Your task to perform on an android device: Search for the new Nike Air Max 270 on Nike.com Image 0: 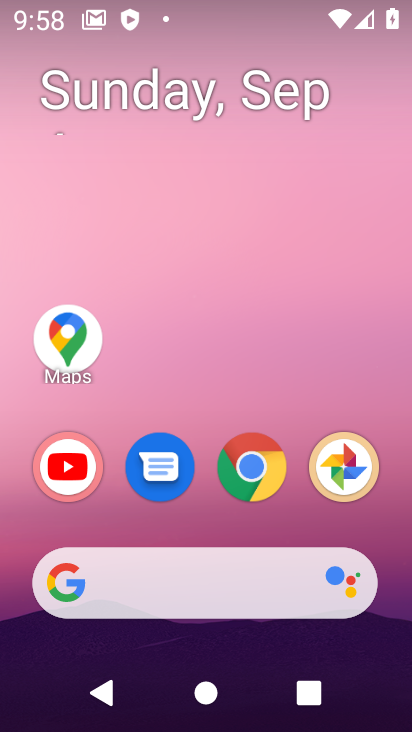
Step 0: click (268, 479)
Your task to perform on an android device: Search for the new Nike Air Max 270 on Nike.com Image 1: 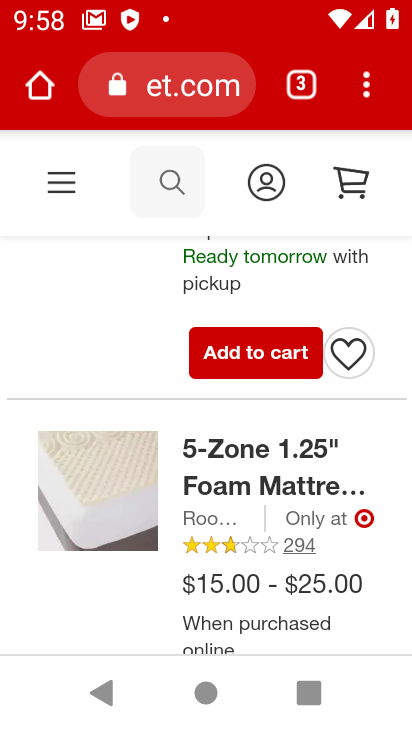
Step 1: click (202, 75)
Your task to perform on an android device: Search for the new Nike Air Max 270 on Nike.com Image 2: 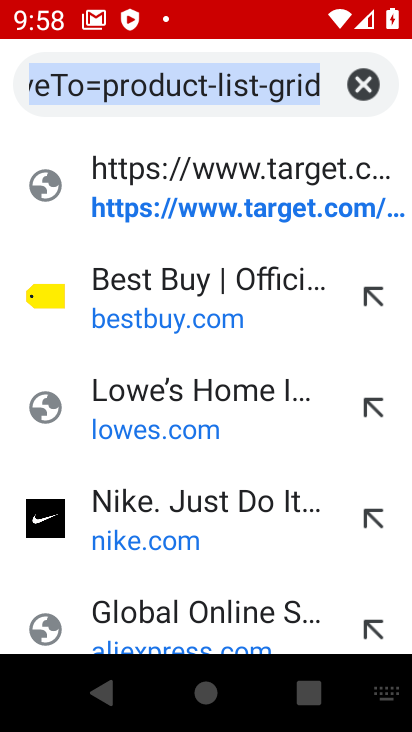
Step 2: click (123, 522)
Your task to perform on an android device: Search for the new Nike Air Max 270 on Nike.com Image 3: 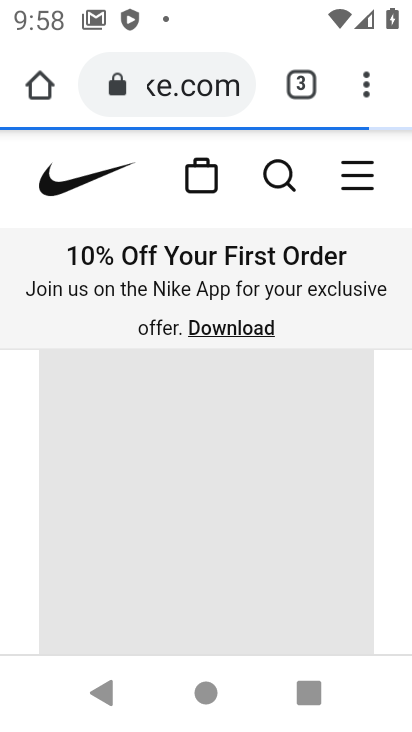
Step 3: click (273, 173)
Your task to perform on an android device: Search for the new Nike Air Max 270 on Nike.com Image 4: 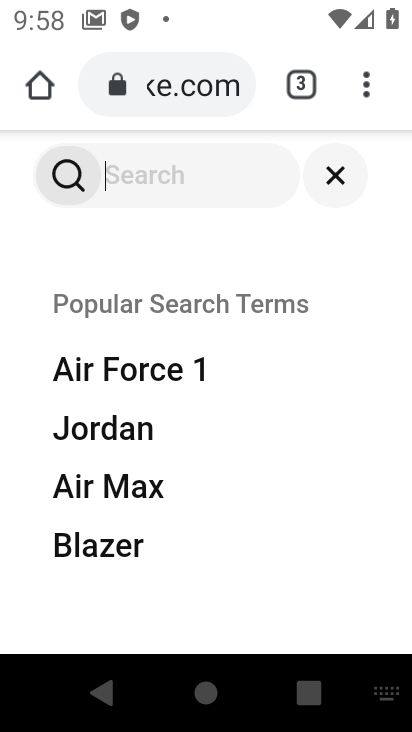
Step 4: type "nike air max 270"
Your task to perform on an android device: Search for the new Nike Air Max 270 on Nike.com Image 5: 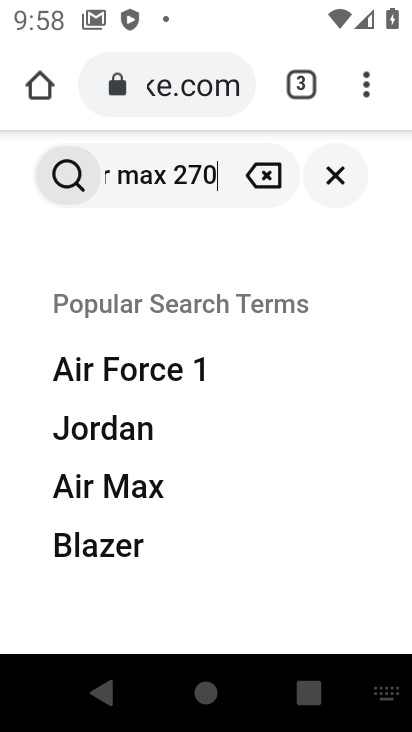
Step 5: type ""
Your task to perform on an android device: Search for the new Nike Air Max 270 on Nike.com Image 6: 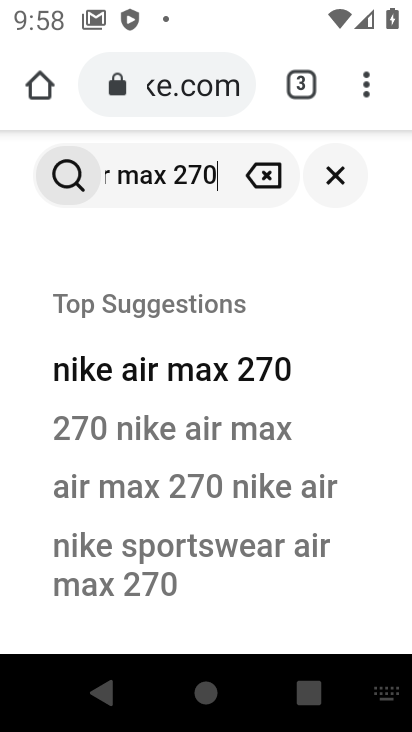
Step 6: click (112, 495)
Your task to perform on an android device: Search for the new Nike Air Max 270 on Nike.com Image 7: 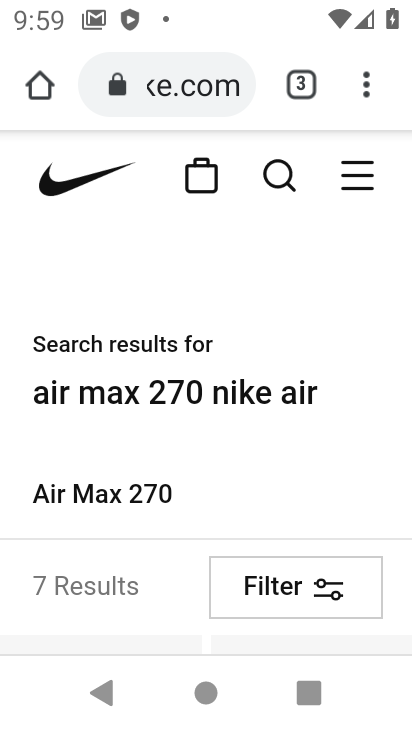
Step 7: click (83, 493)
Your task to perform on an android device: Search for the new Nike Air Max 270 on Nike.com Image 8: 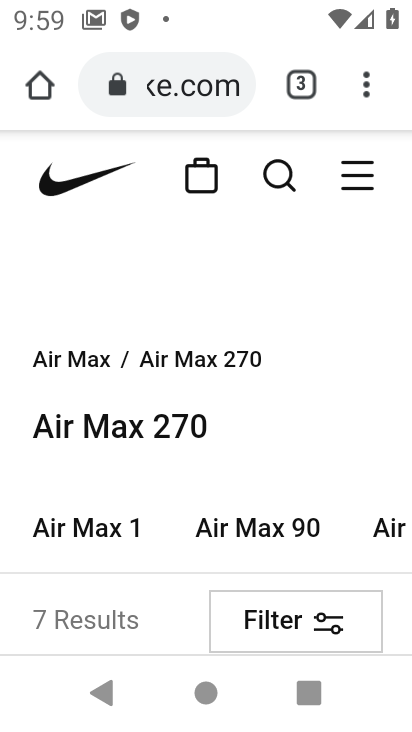
Step 8: drag from (248, 436) to (208, 244)
Your task to perform on an android device: Search for the new Nike Air Max 270 on Nike.com Image 9: 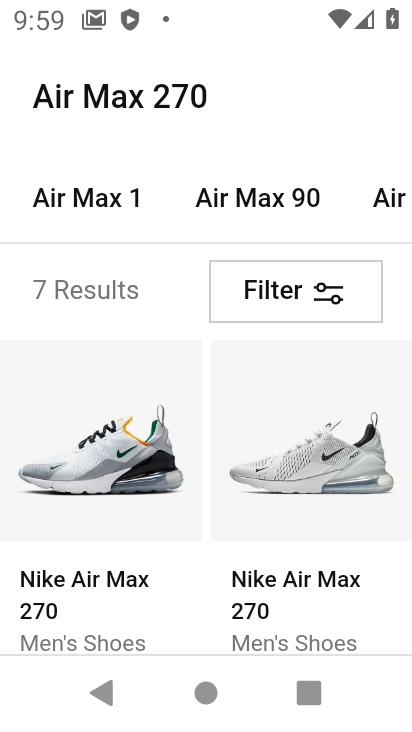
Step 9: drag from (210, 500) to (295, 55)
Your task to perform on an android device: Search for the new Nike Air Max 270 on Nike.com Image 10: 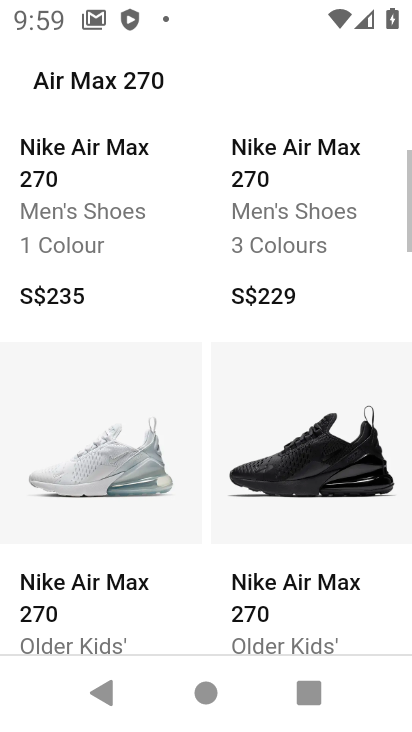
Step 10: drag from (258, 477) to (262, 179)
Your task to perform on an android device: Search for the new Nike Air Max 270 on Nike.com Image 11: 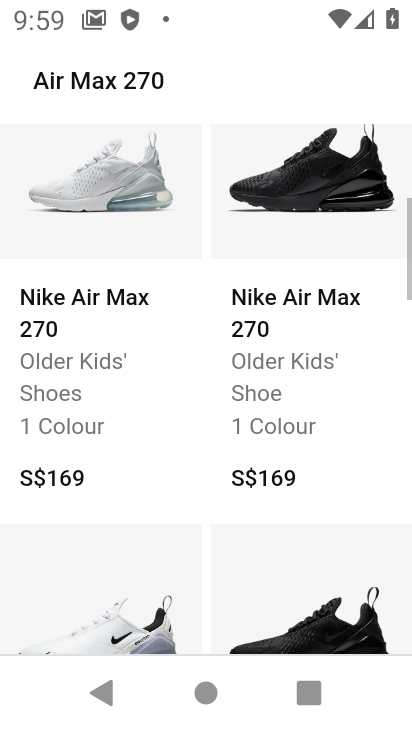
Step 11: drag from (148, 512) to (133, 141)
Your task to perform on an android device: Search for the new Nike Air Max 270 on Nike.com Image 12: 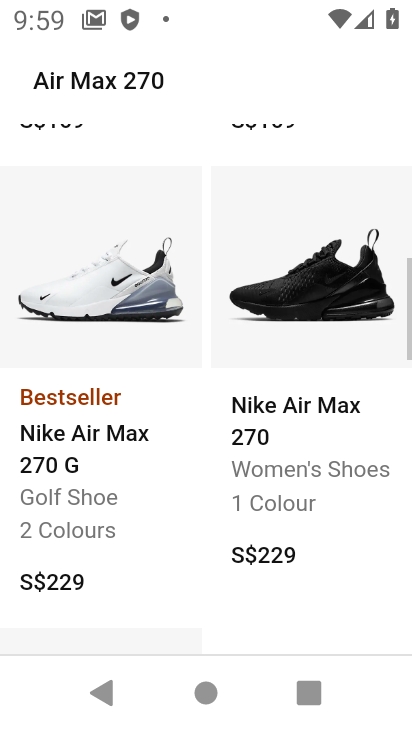
Step 12: drag from (168, 479) to (161, 123)
Your task to perform on an android device: Search for the new Nike Air Max 270 on Nike.com Image 13: 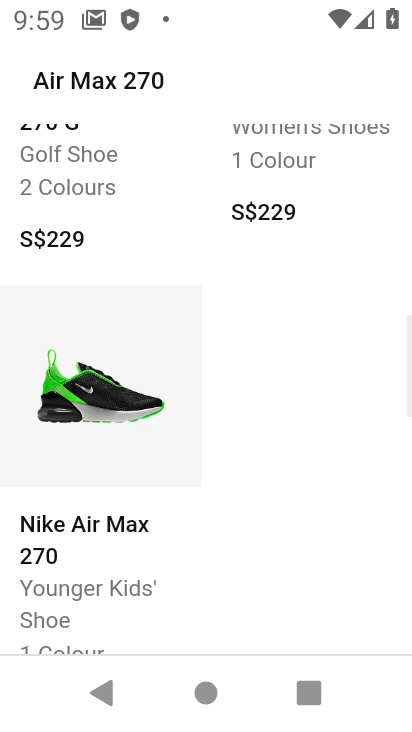
Step 13: drag from (134, 480) to (133, 229)
Your task to perform on an android device: Search for the new Nike Air Max 270 on Nike.com Image 14: 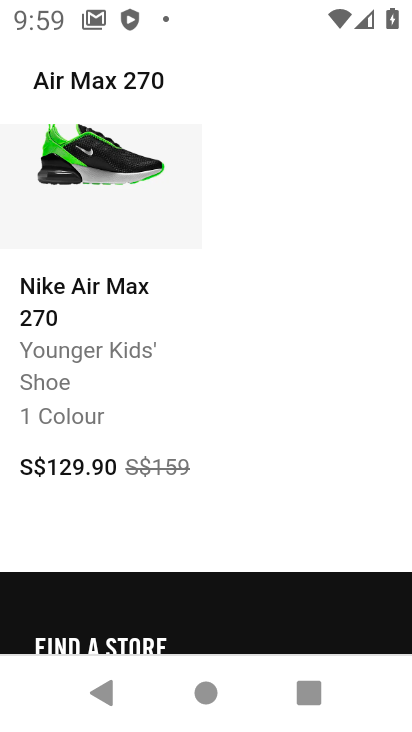
Step 14: drag from (293, 343) to (298, 681)
Your task to perform on an android device: Search for the new Nike Air Max 270 on Nike.com Image 15: 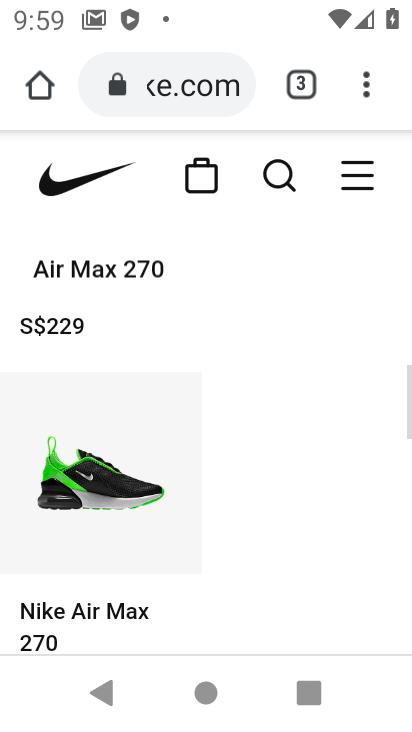
Step 15: drag from (179, 296) to (195, 698)
Your task to perform on an android device: Search for the new Nike Air Max 270 on Nike.com Image 16: 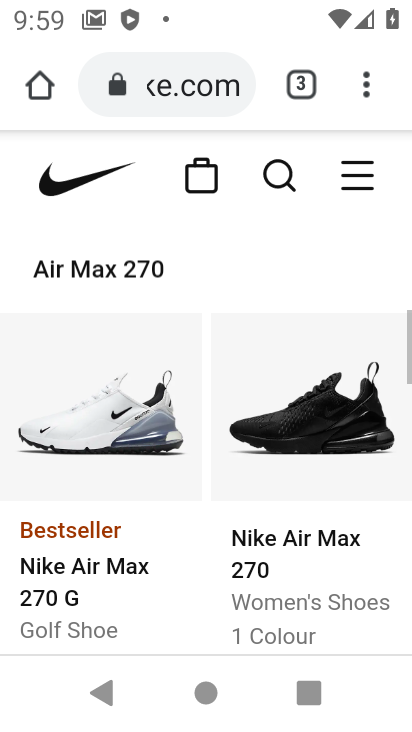
Step 16: drag from (142, 569) to (157, 721)
Your task to perform on an android device: Search for the new Nike Air Max 270 on Nike.com Image 17: 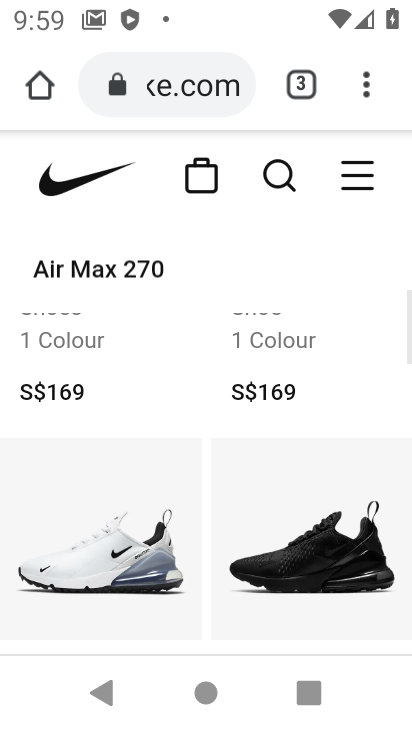
Step 17: drag from (168, 519) to (175, 698)
Your task to perform on an android device: Search for the new Nike Air Max 270 on Nike.com Image 18: 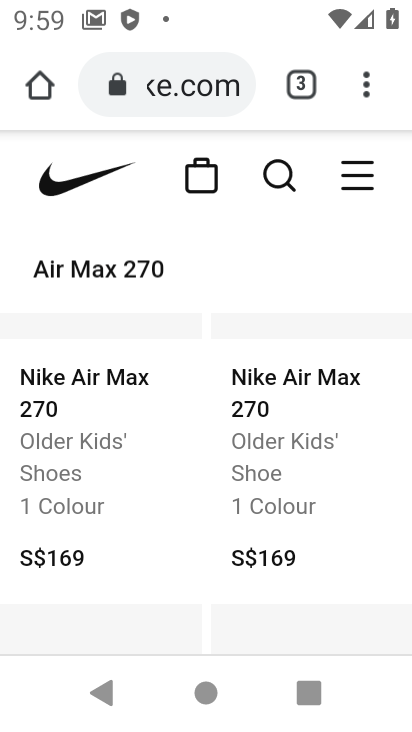
Step 18: drag from (166, 424) to (189, 653)
Your task to perform on an android device: Search for the new Nike Air Max 270 on Nike.com Image 19: 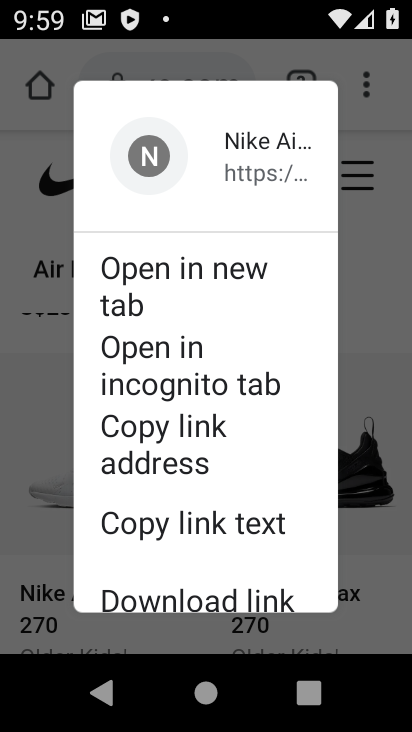
Step 19: drag from (369, 246) to (404, 604)
Your task to perform on an android device: Search for the new Nike Air Max 270 on Nike.com Image 20: 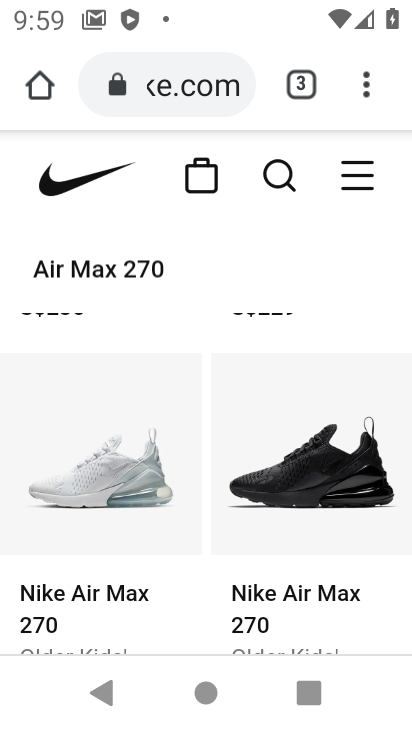
Step 20: drag from (260, 314) to (291, 618)
Your task to perform on an android device: Search for the new Nike Air Max 270 on Nike.com Image 21: 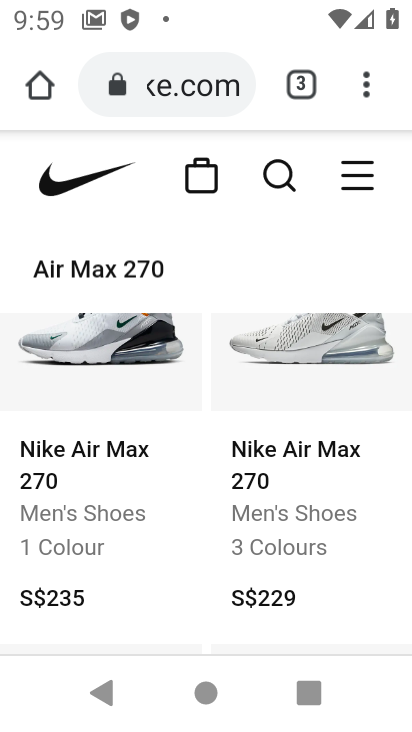
Step 21: drag from (297, 360) to (329, 630)
Your task to perform on an android device: Search for the new Nike Air Max 270 on Nike.com Image 22: 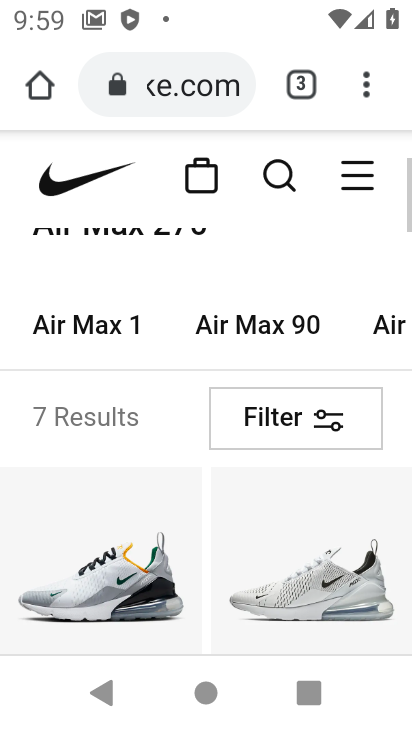
Step 22: click (299, 715)
Your task to perform on an android device: Search for the new Nike Air Max 270 on Nike.com Image 23: 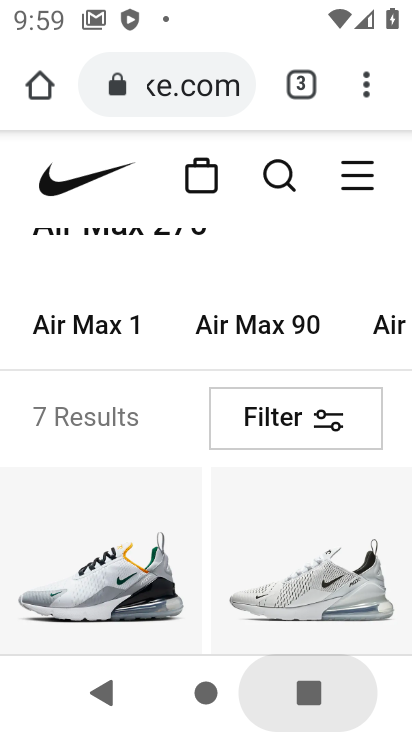
Step 23: drag from (243, 374) to (263, 688)
Your task to perform on an android device: Search for the new Nike Air Max 270 on Nike.com Image 24: 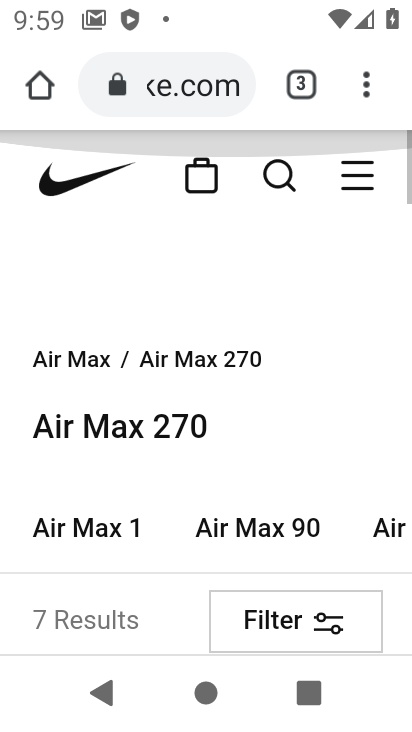
Step 24: drag from (229, 536) to (235, 709)
Your task to perform on an android device: Search for the new Nike Air Max 270 on Nike.com Image 25: 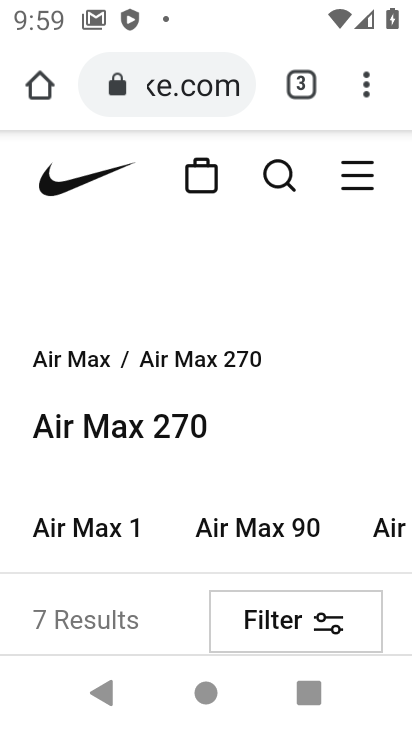
Step 25: drag from (264, 317) to (285, 685)
Your task to perform on an android device: Search for the new Nike Air Max 270 on Nike.com Image 26: 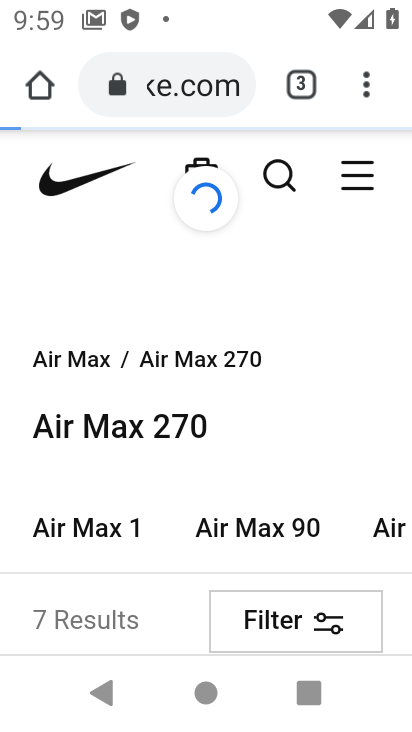
Step 26: drag from (271, 246) to (300, 657)
Your task to perform on an android device: Search for the new Nike Air Max 270 on Nike.com Image 27: 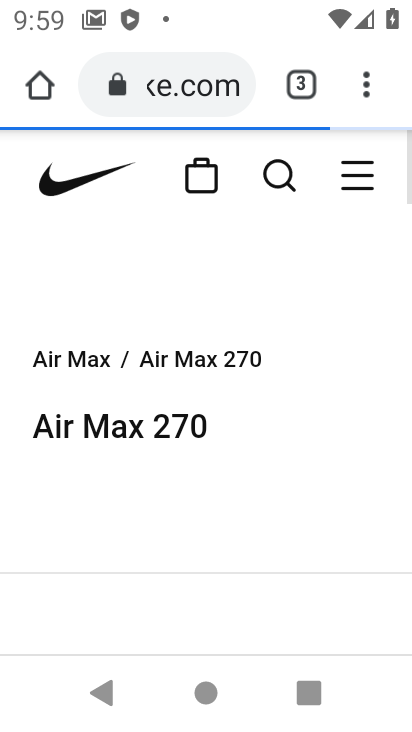
Step 27: drag from (284, 528) to (302, 103)
Your task to perform on an android device: Search for the new Nike Air Max 270 on Nike.com Image 28: 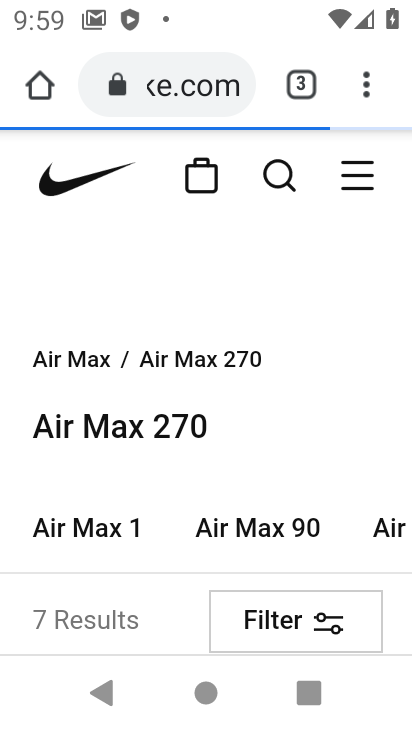
Step 28: drag from (252, 545) to (397, 113)
Your task to perform on an android device: Search for the new Nike Air Max 270 on Nike.com Image 29: 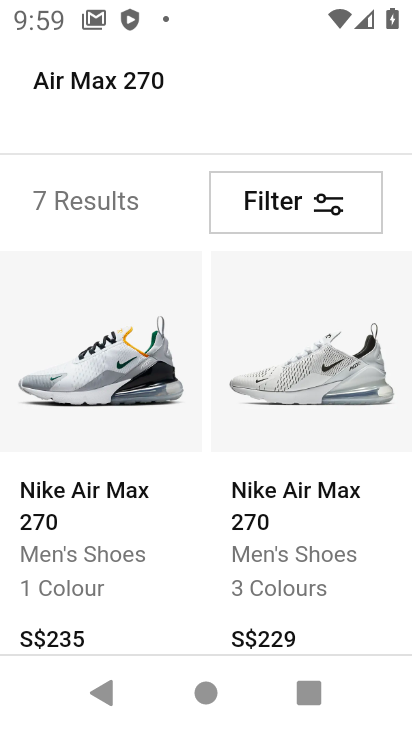
Step 29: click (113, 356)
Your task to perform on an android device: Search for the new Nike Air Max 270 on Nike.com Image 30: 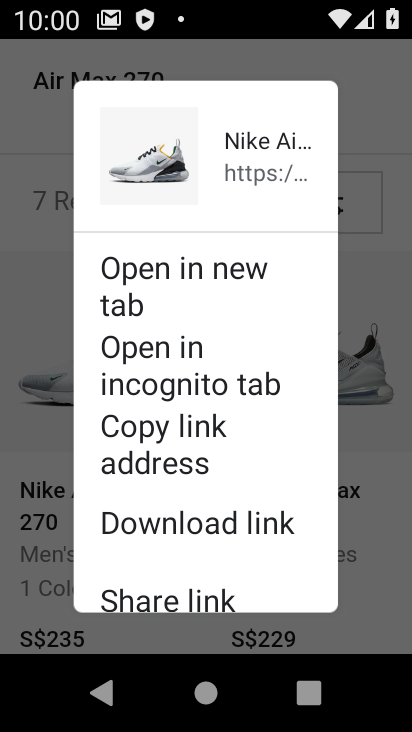
Step 30: task complete